Your task to perform on an android device: toggle notifications settings in the gmail app Image 0: 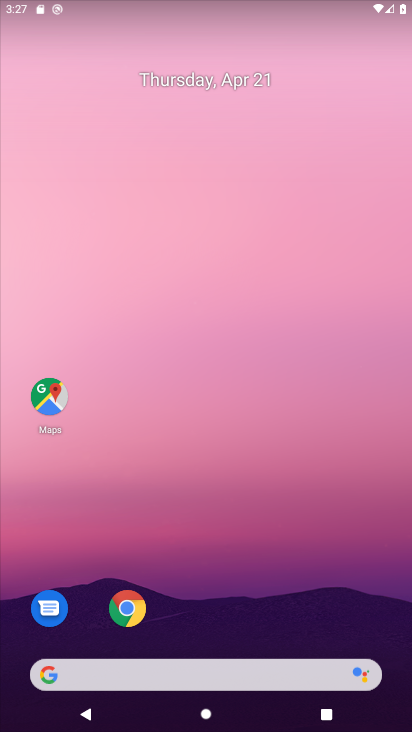
Step 0: drag from (199, 566) to (239, 283)
Your task to perform on an android device: toggle notifications settings in the gmail app Image 1: 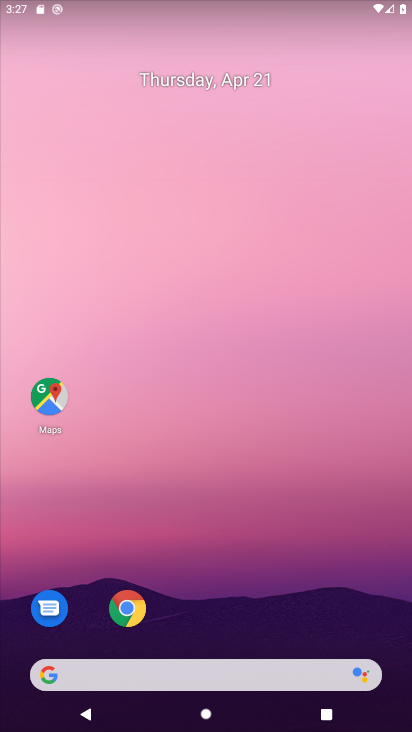
Step 1: drag from (246, 507) to (267, 211)
Your task to perform on an android device: toggle notifications settings in the gmail app Image 2: 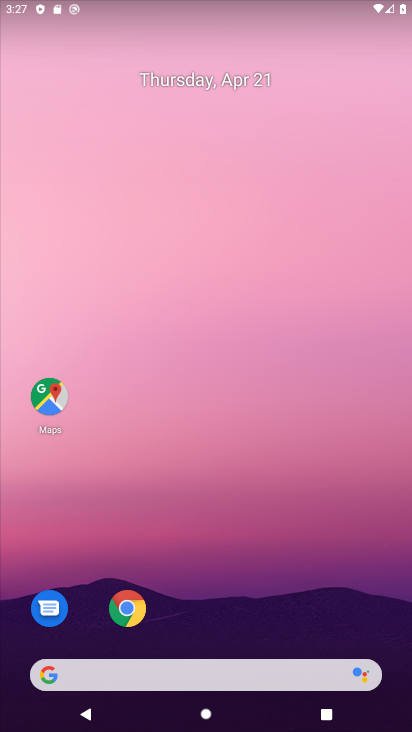
Step 2: drag from (241, 501) to (256, 149)
Your task to perform on an android device: toggle notifications settings in the gmail app Image 3: 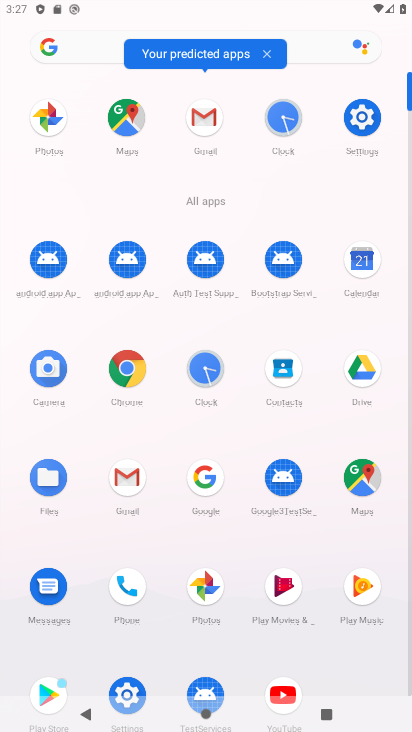
Step 3: click (197, 119)
Your task to perform on an android device: toggle notifications settings in the gmail app Image 4: 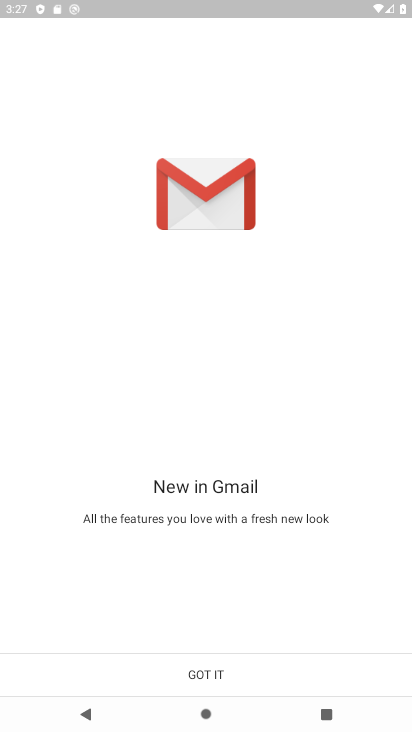
Step 4: click (206, 671)
Your task to perform on an android device: toggle notifications settings in the gmail app Image 5: 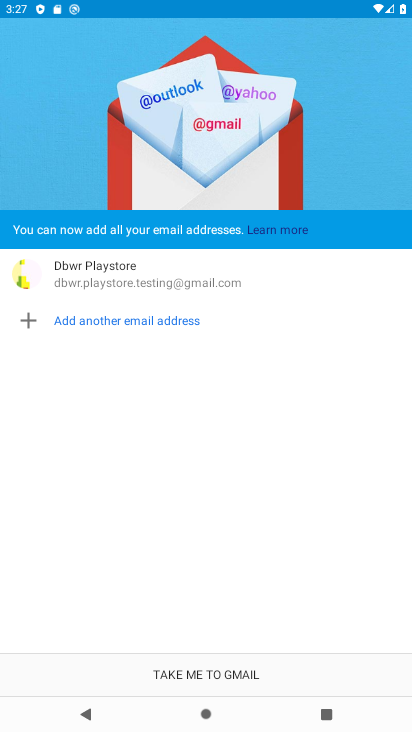
Step 5: click (204, 671)
Your task to perform on an android device: toggle notifications settings in the gmail app Image 6: 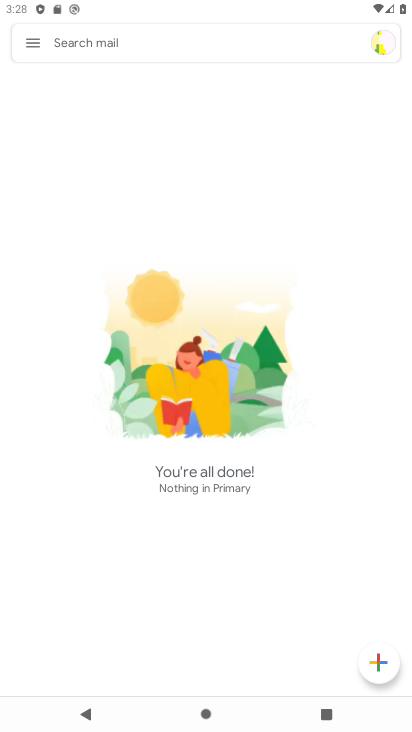
Step 6: click (34, 44)
Your task to perform on an android device: toggle notifications settings in the gmail app Image 7: 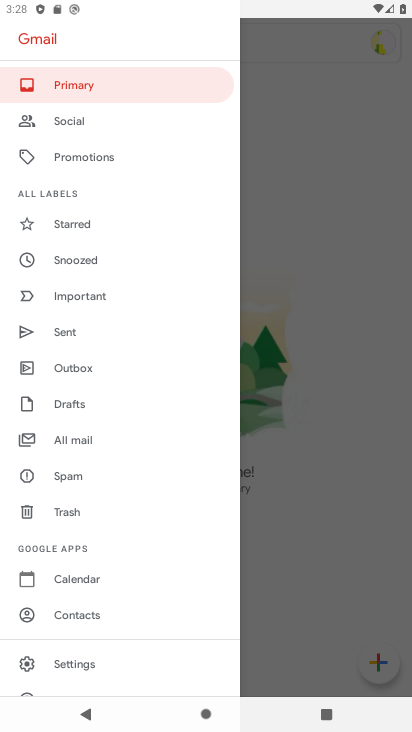
Step 7: click (90, 661)
Your task to perform on an android device: toggle notifications settings in the gmail app Image 8: 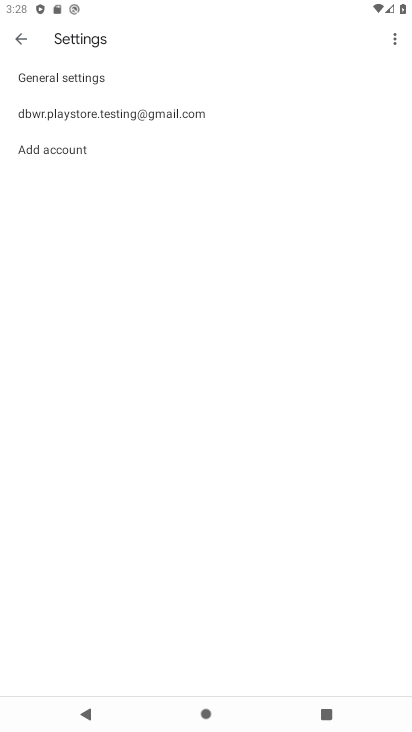
Step 8: click (100, 78)
Your task to perform on an android device: toggle notifications settings in the gmail app Image 9: 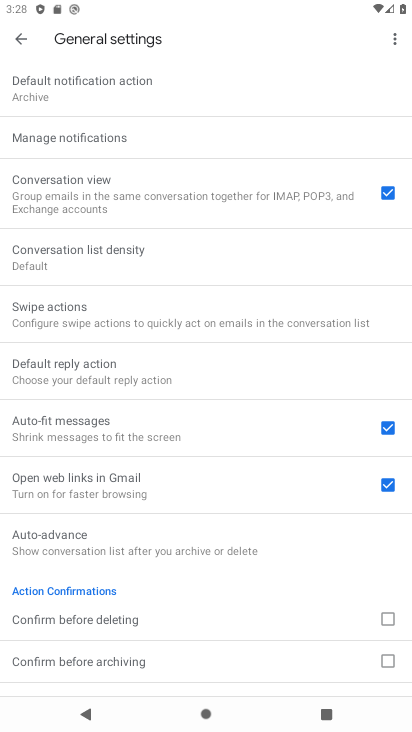
Step 9: click (142, 142)
Your task to perform on an android device: toggle notifications settings in the gmail app Image 10: 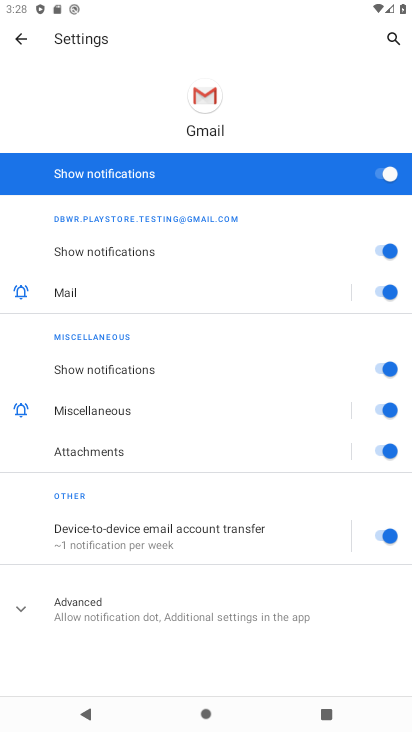
Step 10: drag from (276, 640) to (264, 563)
Your task to perform on an android device: toggle notifications settings in the gmail app Image 11: 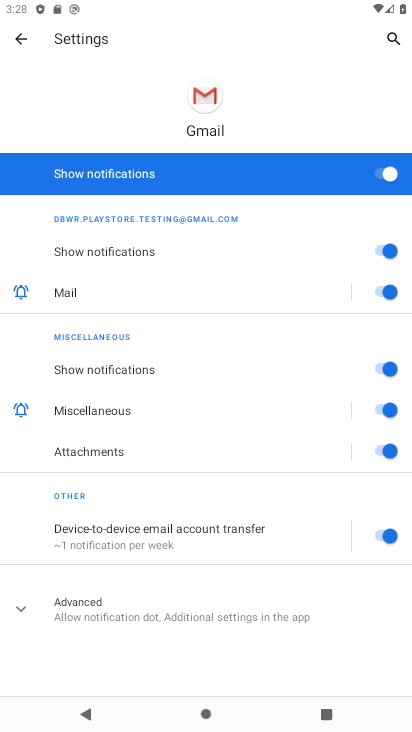
Step 11: click (224, 603)
Your task to perform on an android device: toggle notifications settings in the gmail app Image 12: 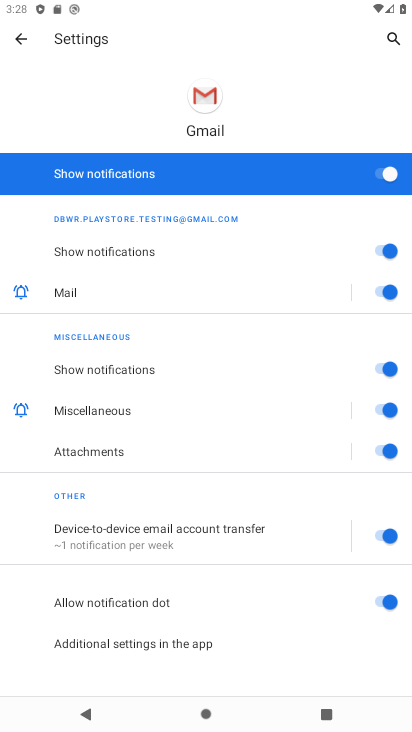
Step 12: drag from (219, 576) to (205, 251)
Your task to perform on an android device: toggle notifications settings in the gmail app Image 13: 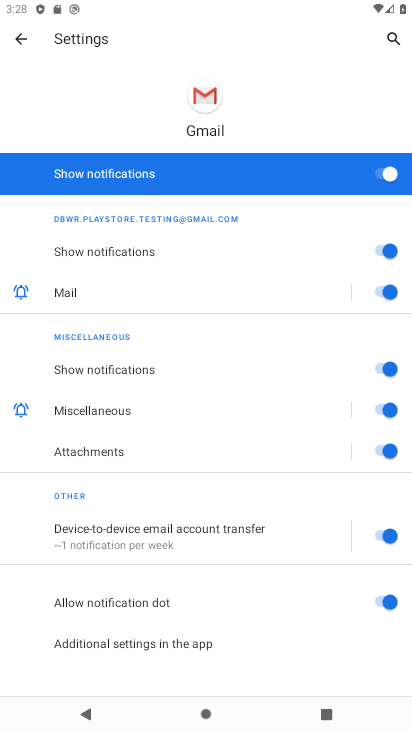
Step 13: click (386, 170)
Your task to perform on an android device: toggle notifications settings in the gmail app Image 14: 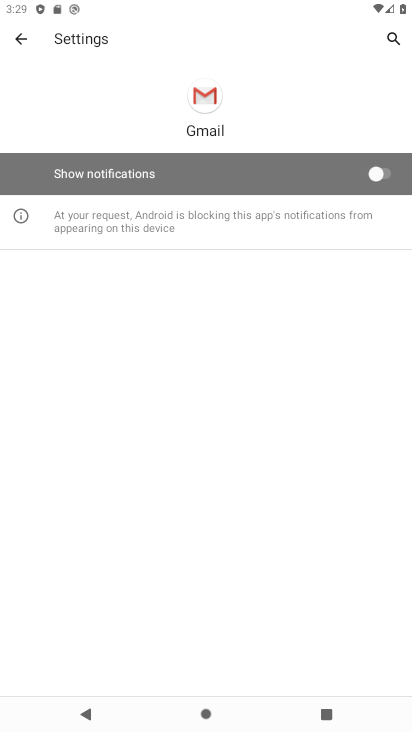
Step 14: task complete